Your task to perform on an android device: turn on airplane mode Image 0: 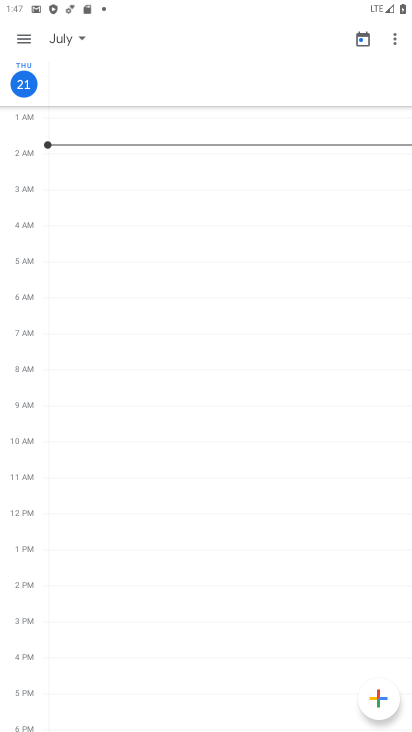
Step 0: press home button
Your task to perform on an android device: turn on airplane mode Image 1: 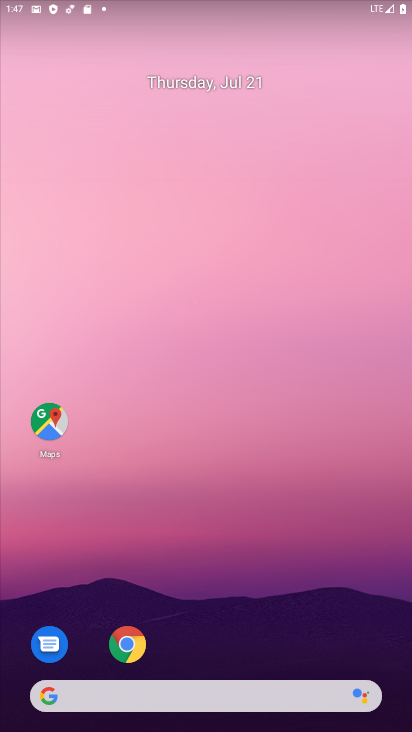
Step 1: drag from (221, 638) to (219, 172)
Your task to perform on an android device: turn on airplane mode Image 2: 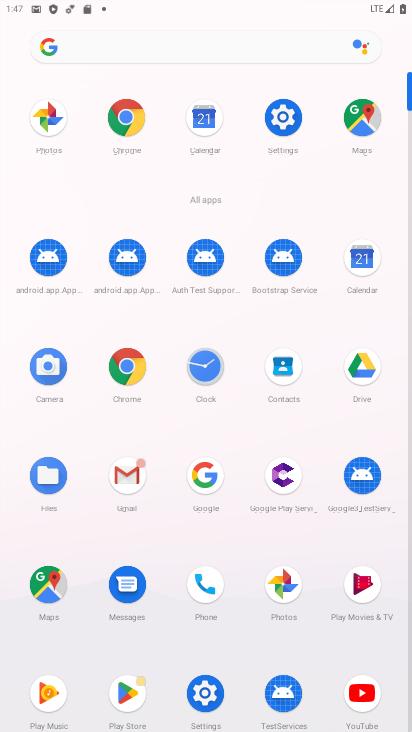
Step 2: click (287, 110)
Your task to perform on an android device: turn on airplane mode Image 3: 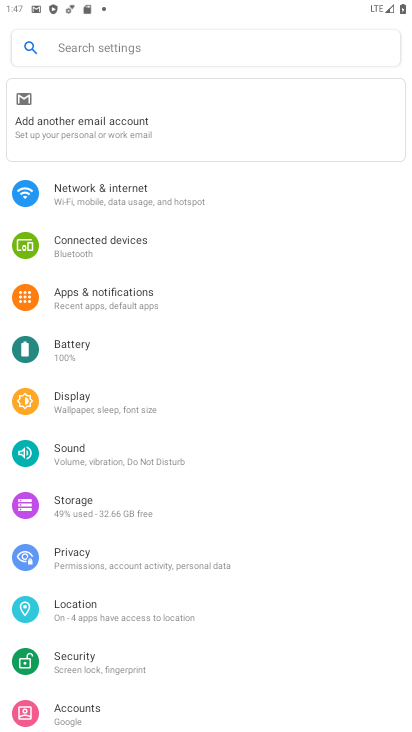
Step 3: click (264, 180)
Your task to perform on an android device: turn on airplane mode Image 4: 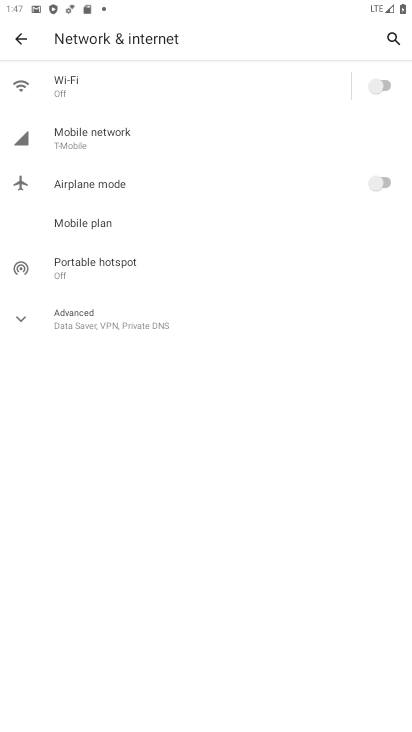
Step 4: click (371, 184)
Your task to perform on an android device: turn on airplane mode Image 5: 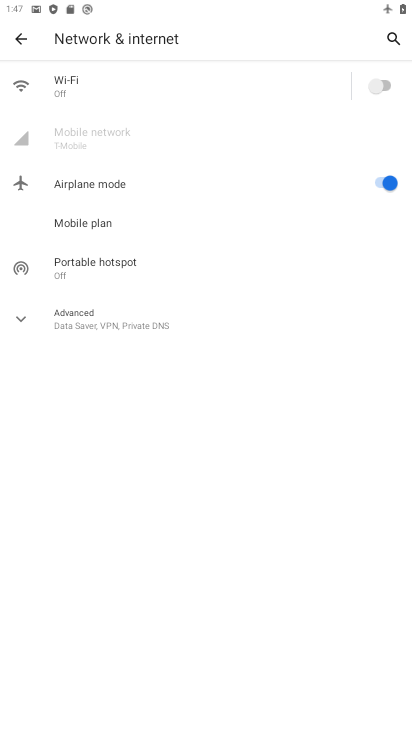
Step 5: task complete